Your task to perform on an android device: toggle airplane mode Image 0: 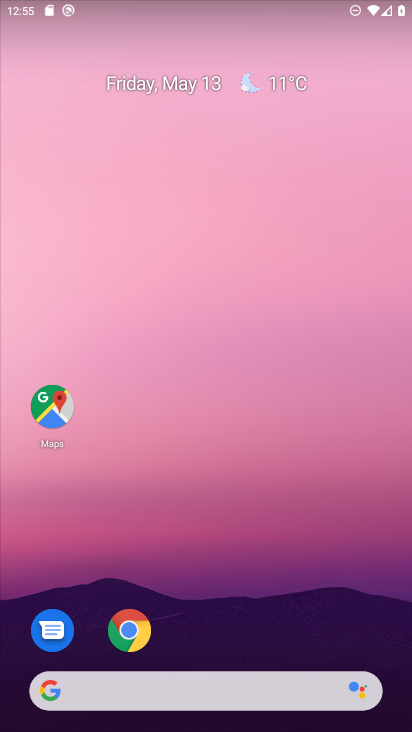
Step 0: drag from (261, 3) to (284, 623)
Your task to perform on an android device: toggle airplane mode Image 1: 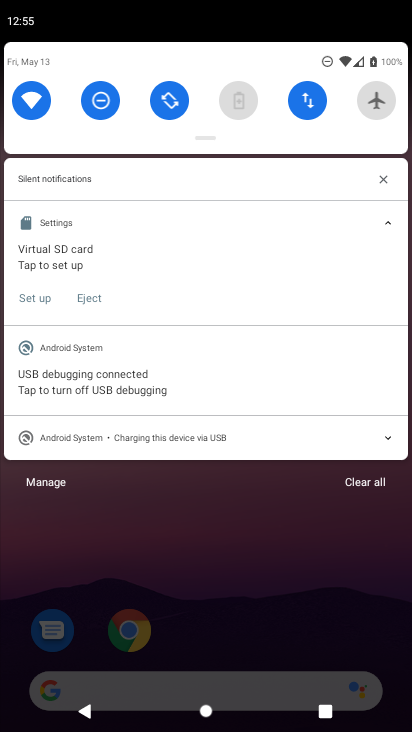
Step 1: click (376, 93)
Your task to perform on an android device: toggle airplane mode Image 2: 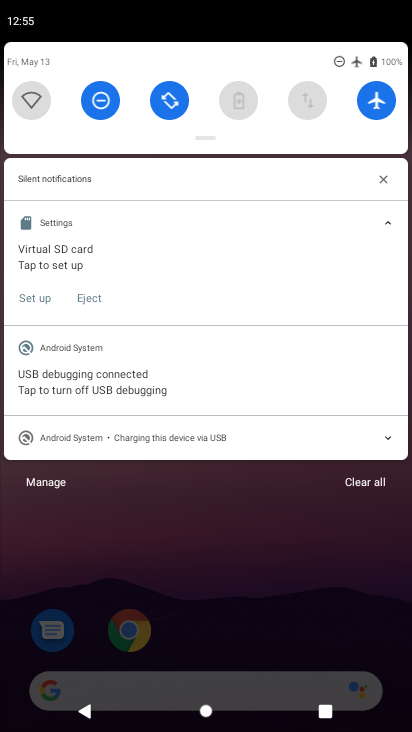
Step 2: task complete